Your task to perform on an android device: Go to internet settings Image 0: 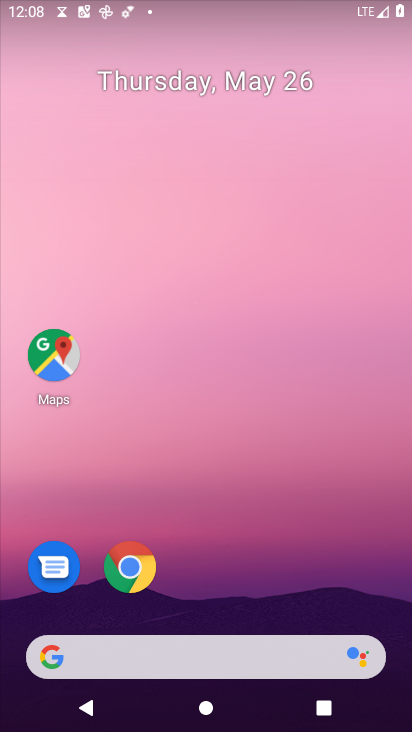
Step 0: drag from (324, 531) to (254, 76)
Your task to perform on an android device: Go to internet settings Image 1: 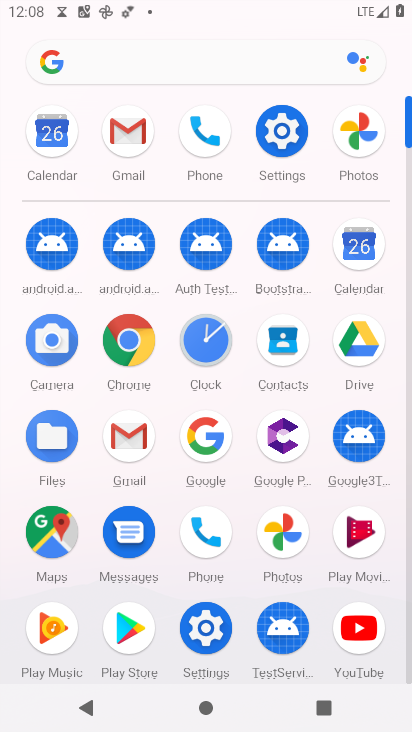
Step 1: click (280, 108)
Your task to perform on an android device: Go to internet settings Image 2: 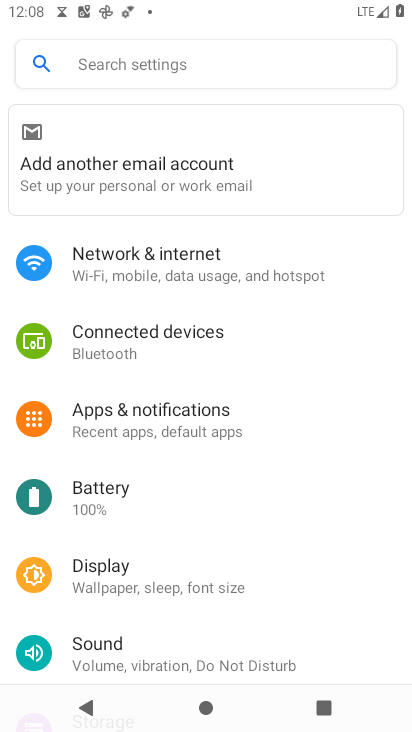
Step 2: click (122, 244)
Your task to perform on an android device: Go to internet settings Image 3: 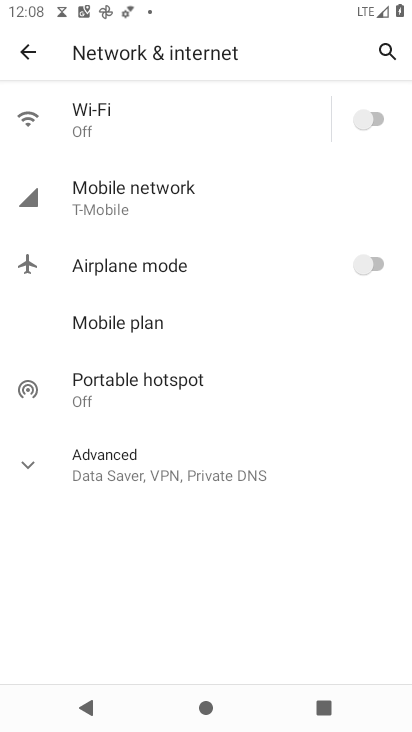
Step 3: task complete